Your task to perform on an android device: turn off wifi Image 0: 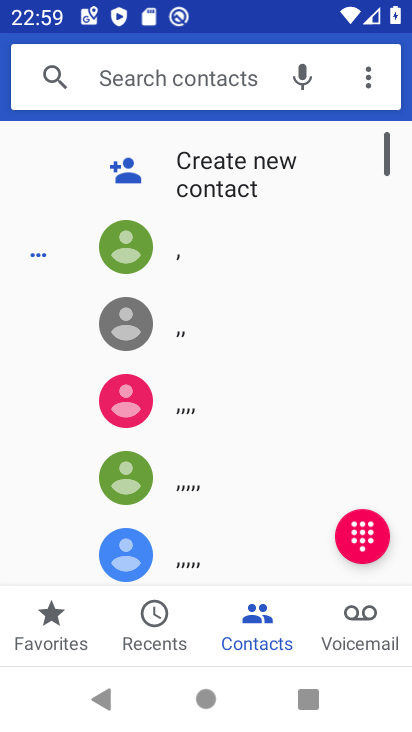
Step 0: press home button
Your task to perform on an android device: turn off wifi Image 1: 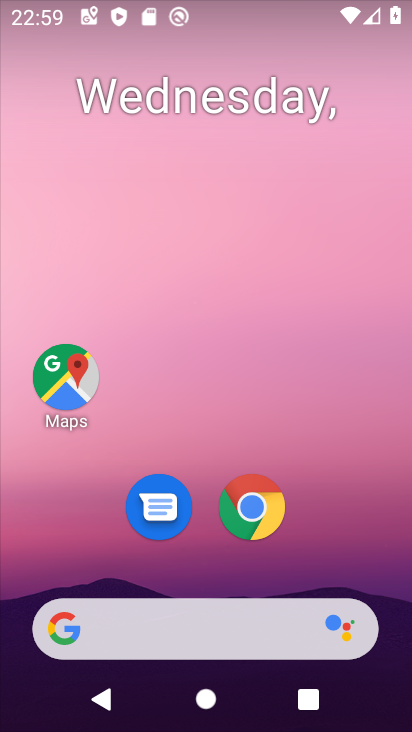
Step 1: drag from (307, 397) to (305, 274)
Your task to perform on an android device: turn off wifi Image 2: 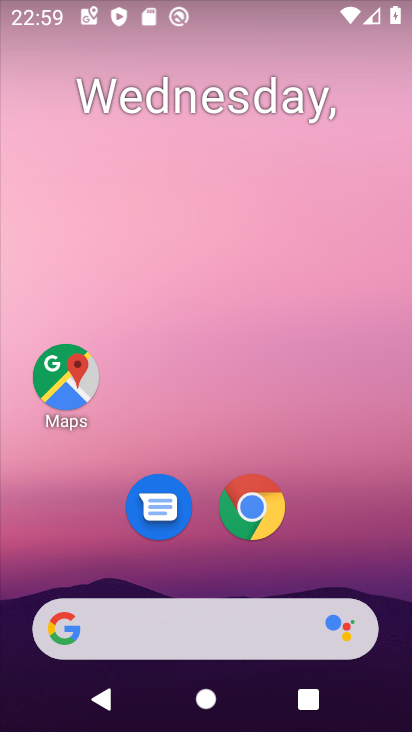
Step 2: drag from (283, 501) to (302, 205)
Your task to perform on an android device: turn off wifi Image 3: 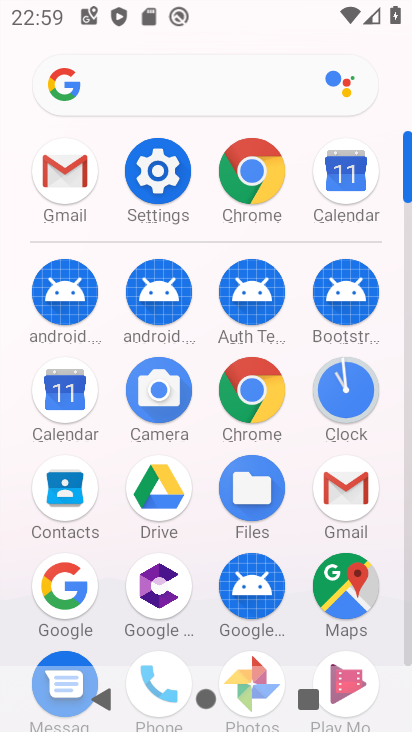
Step 3: click (143, 171)
Your task to perform on an android device: turn off wifi Image 4: 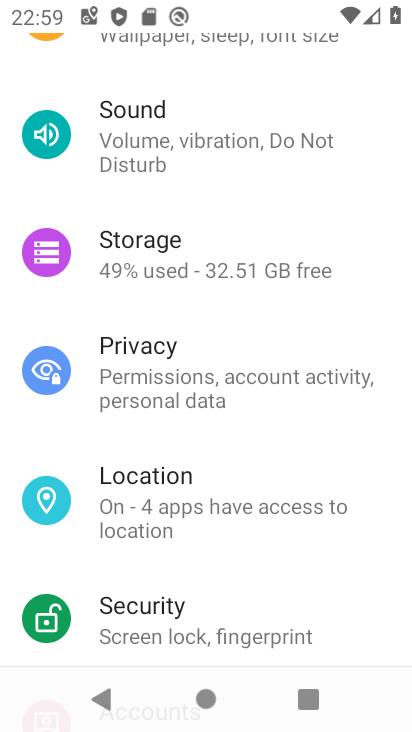
Step 4: drag from (239, 146) to (233, 585)
Your task to perform on an android device: turn off wifi Image 5: 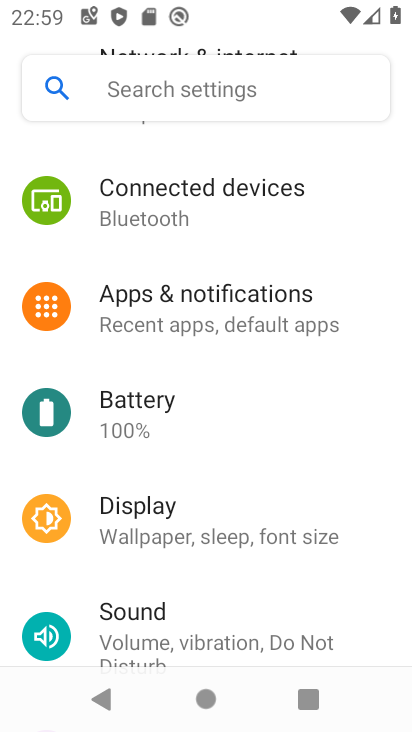
Step 5: drag from (206, 218) to (211, 571)
Your task to perform on an android device: turn off wifi Image 6: 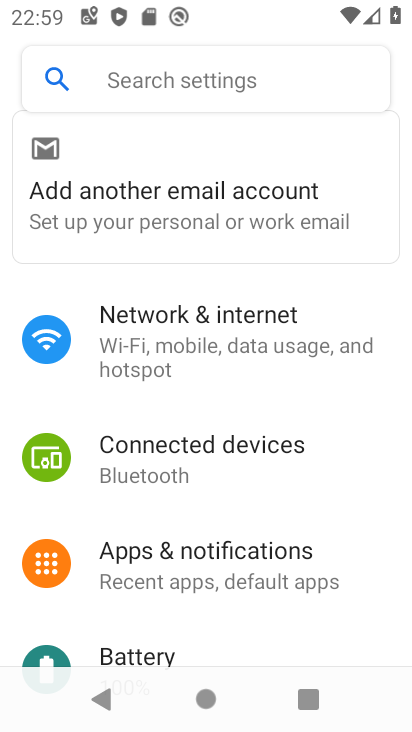
Step 6: click (218, 333)
Your task to perform on an android device: turn off wifi Image 7: 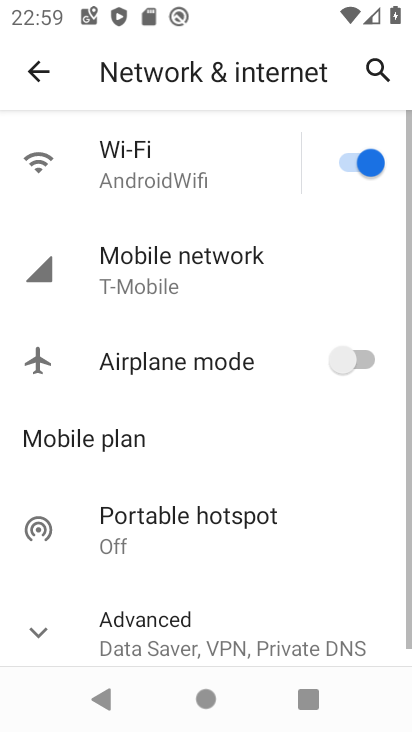
Step 7: click (352, 155)
Your task to perform on an android device: turn off wifi Image 8: 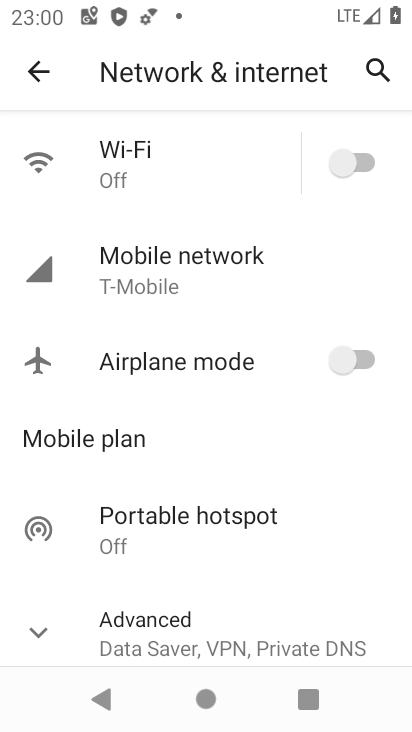
Step 8: task complete